Your task to perform on an android device: delete browsing data in the chrome app Image 0: 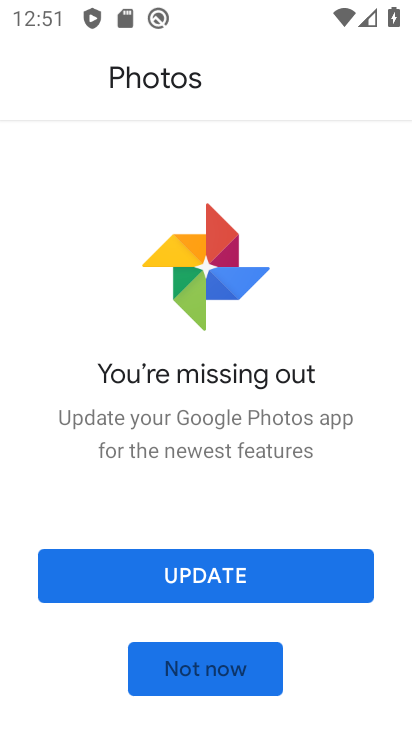
Step 0: press back button
Your task to perform on an android device: delete browsing data in the chrome app Image 1: 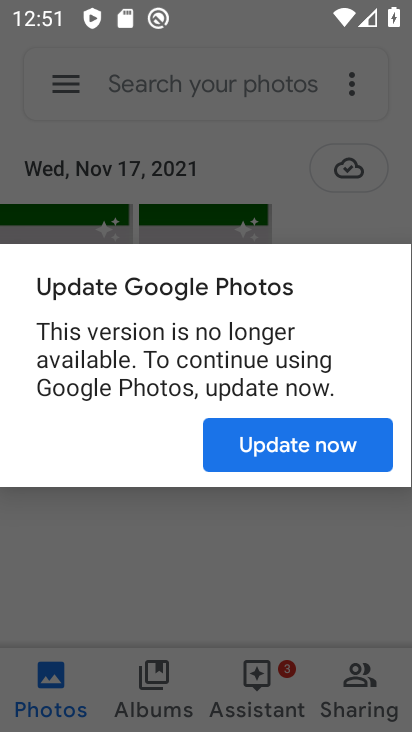
Step 1: press back button
Your task to perform on an android device: delete browsing data in the chrome app Image 2: 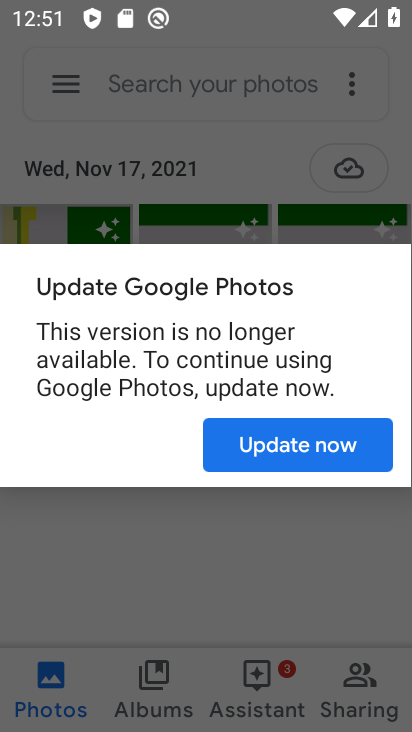
Step 2: press home button
Your task to perform on an android device: delete browsing data in the chrome app Image 3: 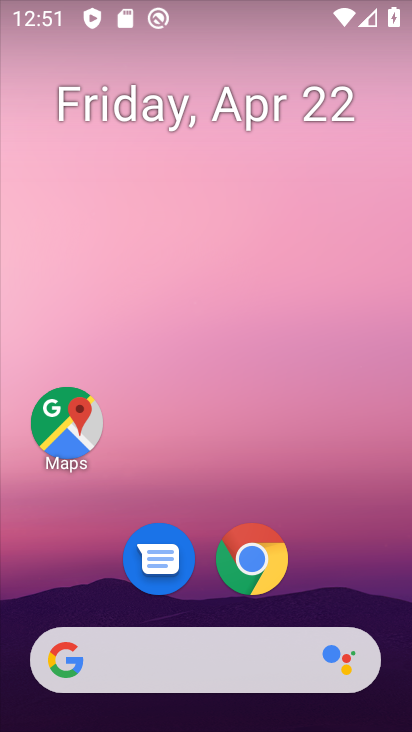
Step 3: drag from (350, 602) to (308, 259)
Your task to perform on an android device: delete browsing data in the chrome app Image 4: 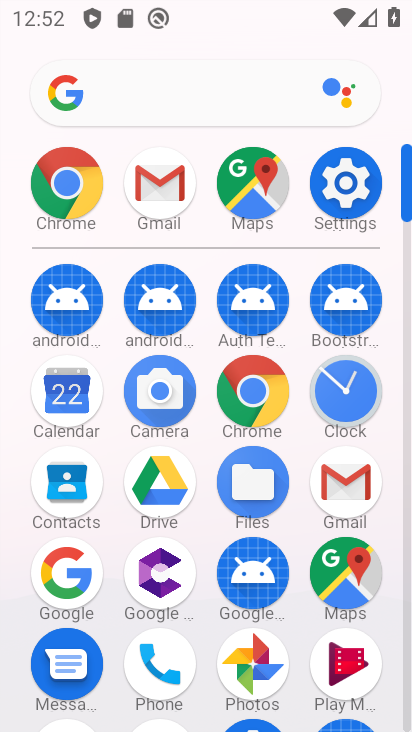
Step 4: click (275, 390)
Your task to perform on an android device: delete browsing data in the chrome app Image 5: 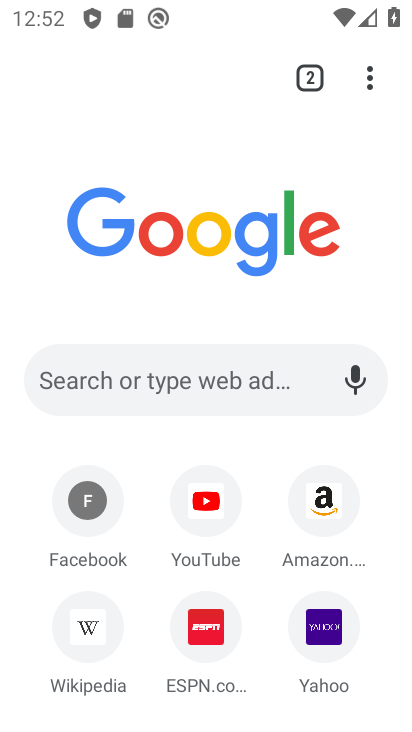
Step 5: click (371, 72)
Your task to perform on an android device: delete browsing data in the chrome app Image 6: 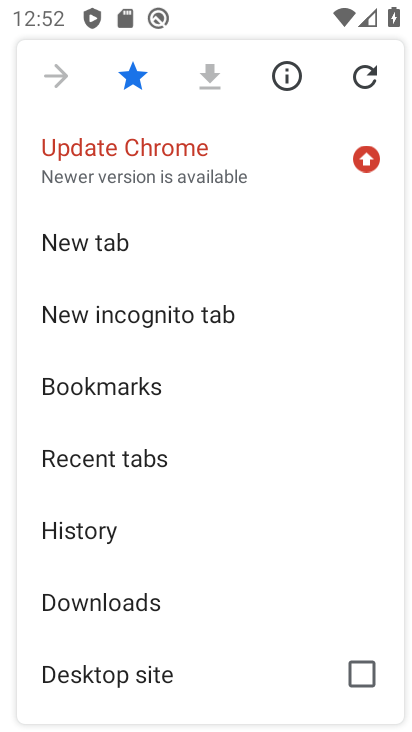
Step 6: click (144, 548)
Your task to perform on an android device: delete browsing data in the chrome app Image 7: 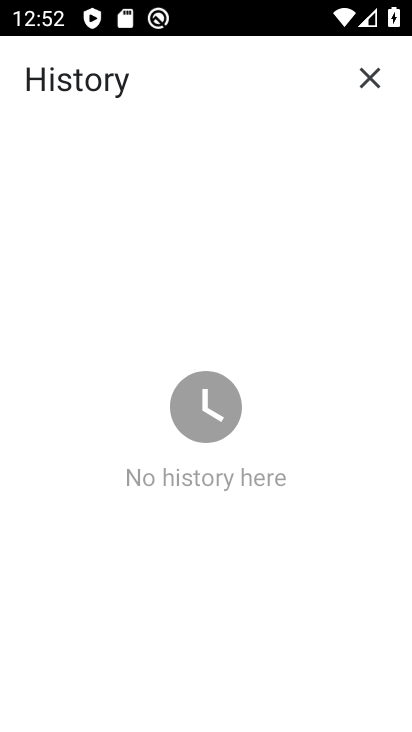
Step 7: task complete